Your task to perform on an android device: What time is it in San Francisco? Image 0: 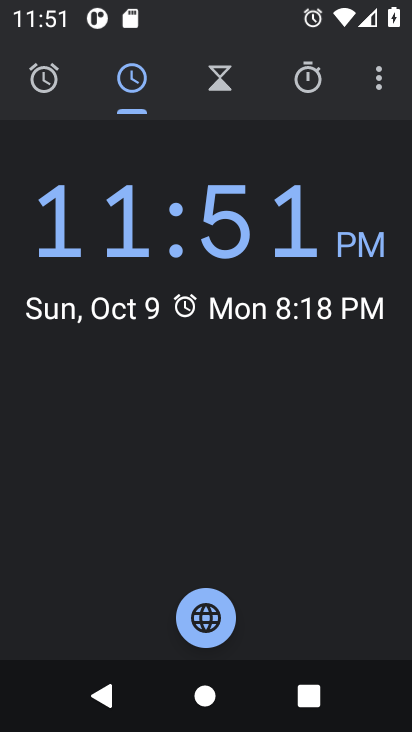
Step 0: press home button
Your task to perform on an android device: What time is it in San Francisco? Image 1: 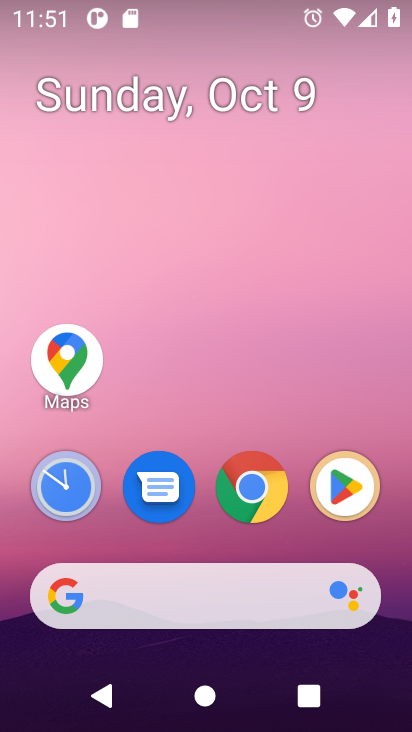
Step 1: click (250, 488)
Your task to perform on an android device: What time is it in San Francisco? Image 2: 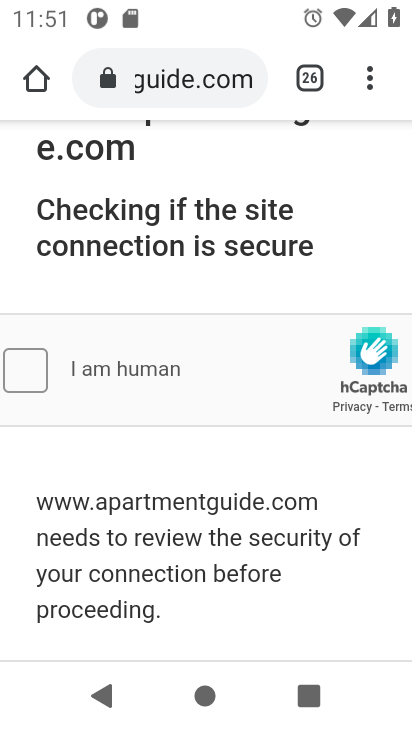
Step 2: drag from (367, 82) to (60, 155)
Your task to perform on an android device: What time is it in San Francisco? Image 3: 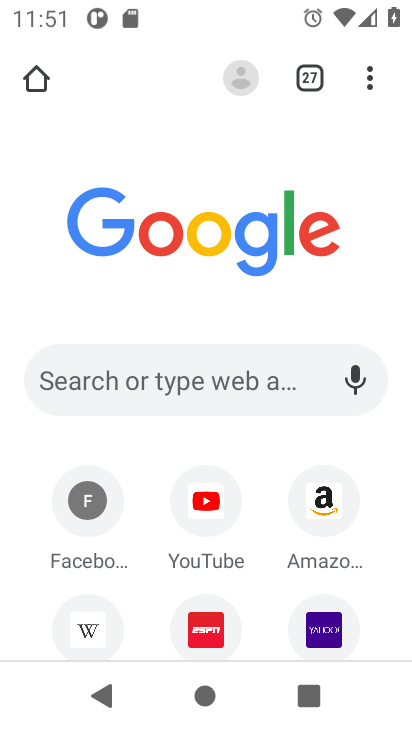
Step 3: click (194, 379)
Your task to perform on an android device: What time is it in San Francisco? Image 4: 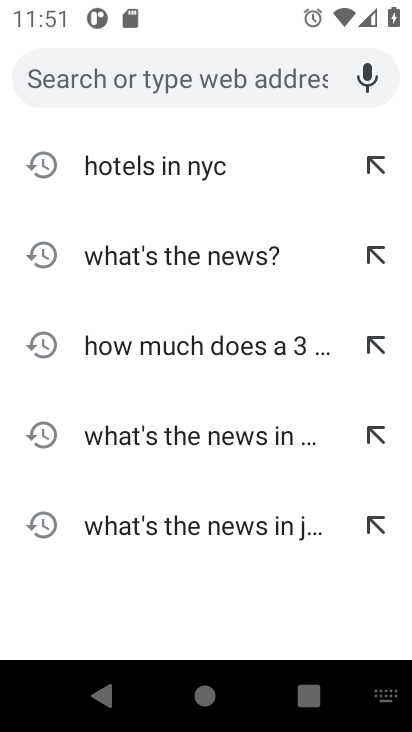
Step 4: type "What time is it in San Francisco?"
Your task to perform on an android device: What time is it in San Francisco? Image 5: 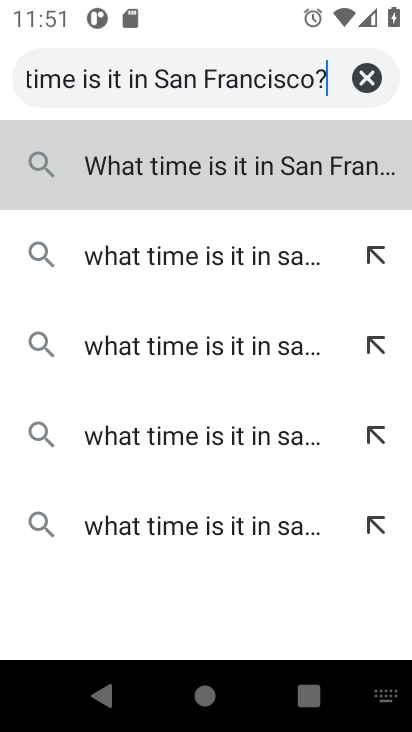
Step 5: type ""
Your task to perform on an android device: What time is it in San Francisco? Image 6: 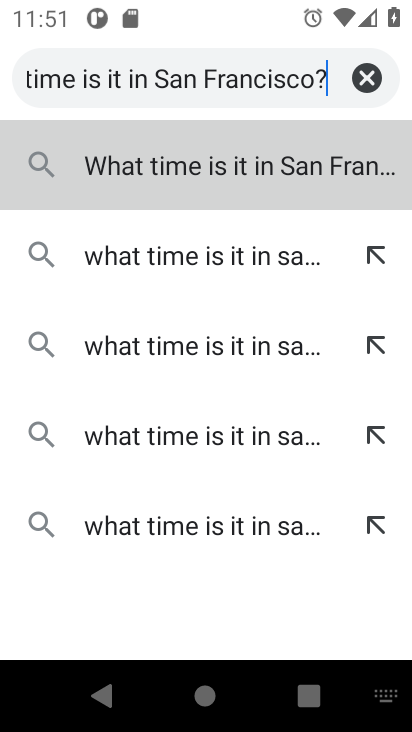
Step 6: click (219, 150)
Your task to perform on an android device: What time is it in San Francisco? Image 7: 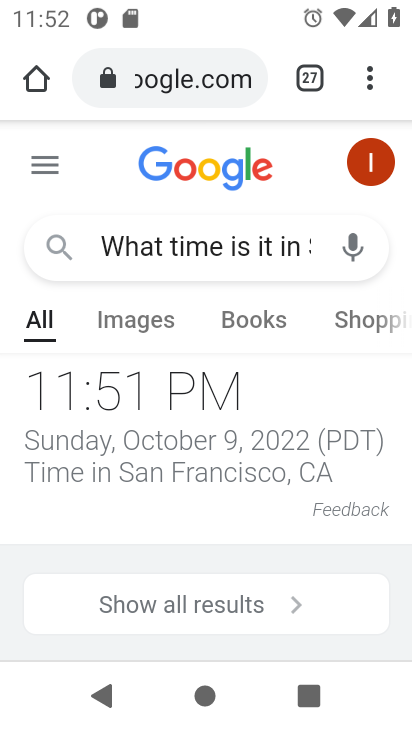
Step 7: task complete